Your task to perform on an android device: Turn off the flashlight Image 0: 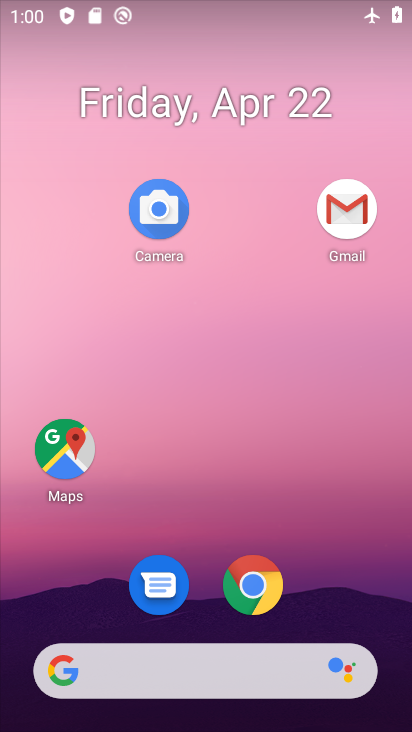
Step 0: drag from (360, 559) to (313, 120)
Your task to perform on an android device: Turn off the flashlight Image 1: 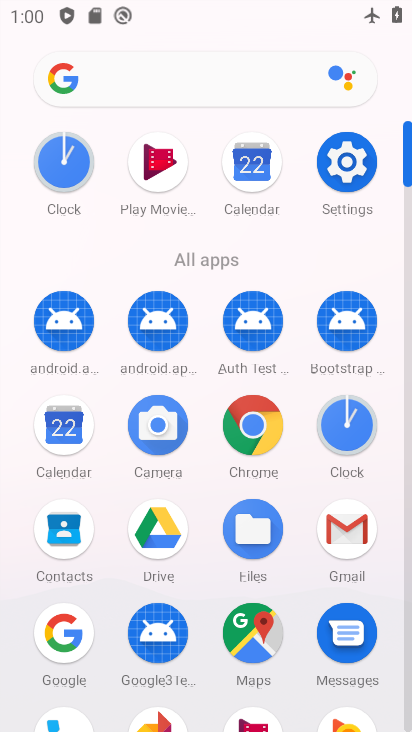
Step 1: click (349, 165)
Your task to perform on an android device: Turn off the flashlight Image 2: 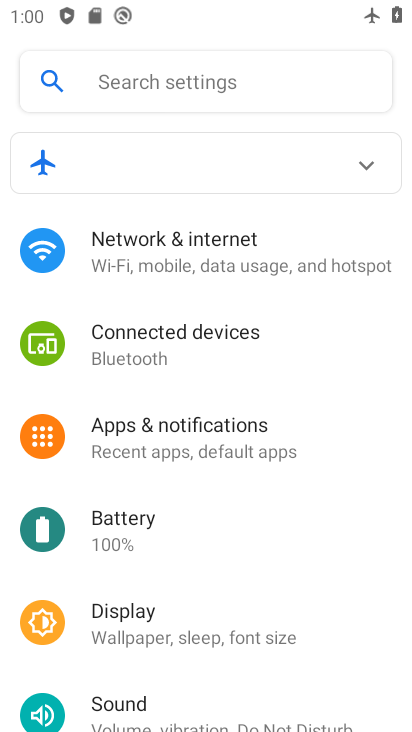
Step 2: click (289, 74)
Your task to perform on an android device: Turn off the flashlight Image 3: 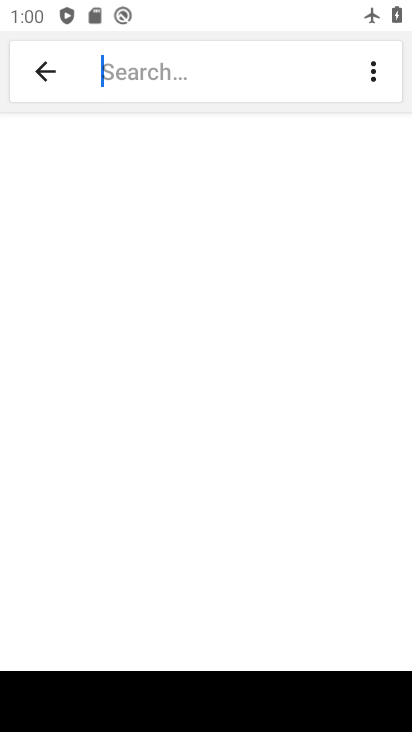
Step 3: type "Flashlight"
Your task to perform on an android device: Turn off the flashlight Image 4: 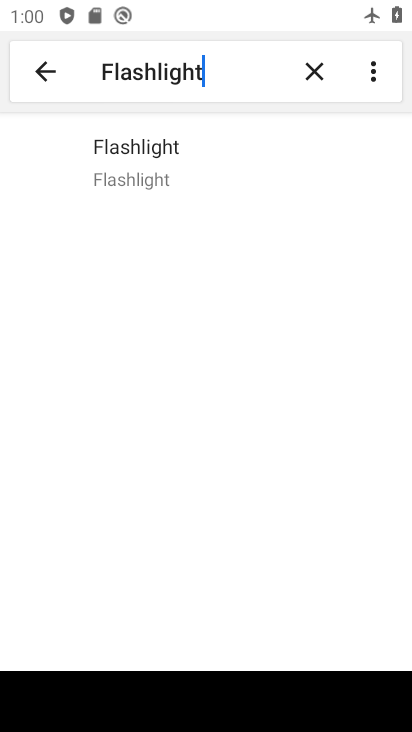
Step 4: click (151, 153)
Your task to perform on an android device: Turn off the flashlight Image 5: 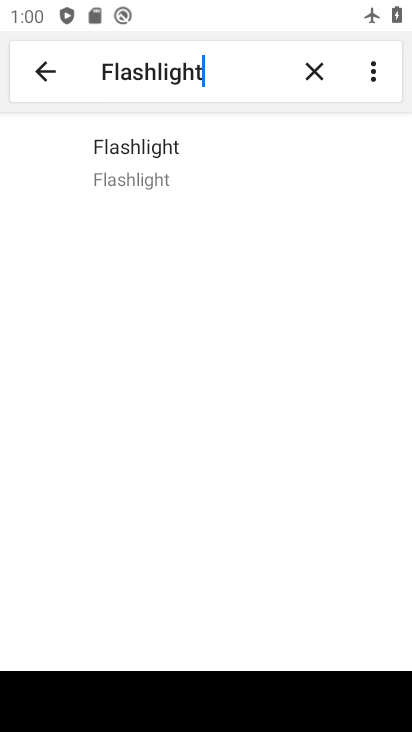
Step 5: task complete